Your task to perform on an android device: check the backup settings in the google photos Image 0: 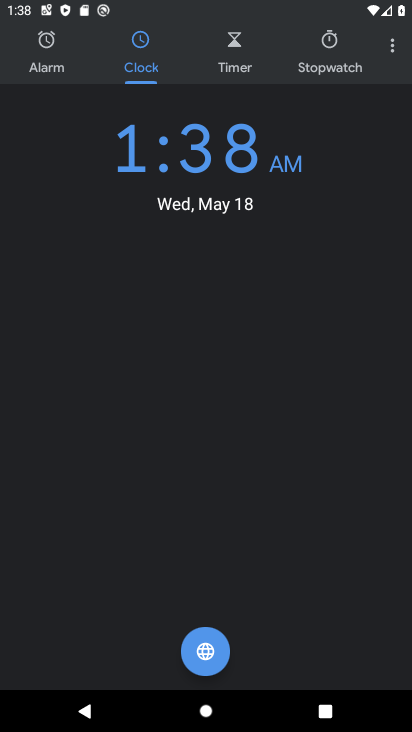
Step 0: press home button
Your task to perform on an android device: check the backup settings in the google photos Image 1: 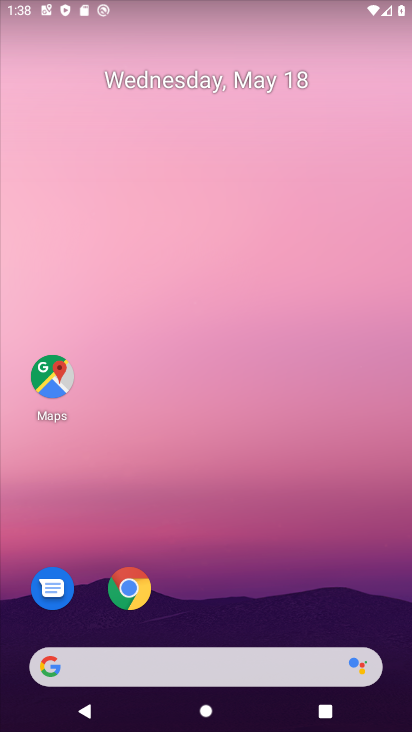
Step 1: drag from (284, 586) to (288, 208)
Your task to perform on an android device: check the backup settings in the google photos Image 2: 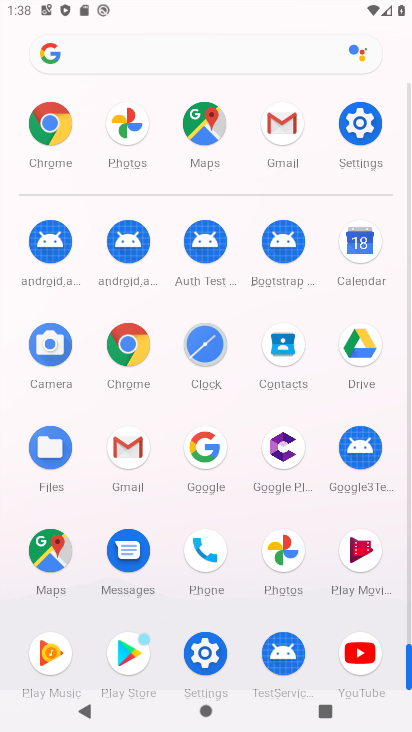
Step 2: click (288, 559)
Your task to perform on an android device: check the backup settings in the google photos Image 3: 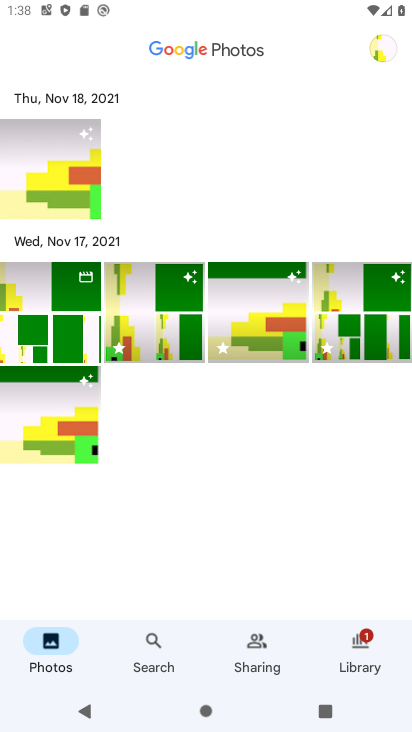
Step 3: click (378, 56)
Your task to perform on an android device: check the backup settings in the google photos Image 4: 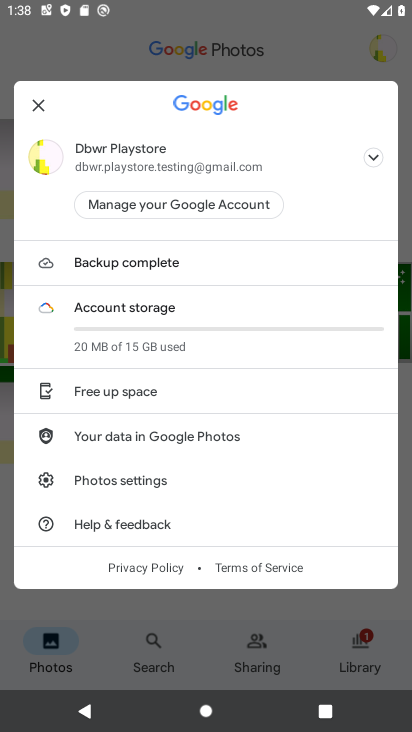
Step 4: click (170, 482)
Your task to perform on an android device: check the backup settings in the google photos Image 5: 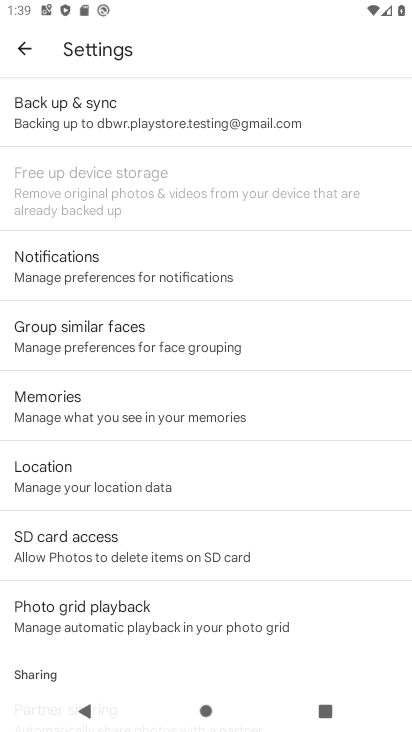
Step 5: drag from (342, 569) to (319, 396)
Your task to perform on an android device: check the backup settings in the google photos Image 6: 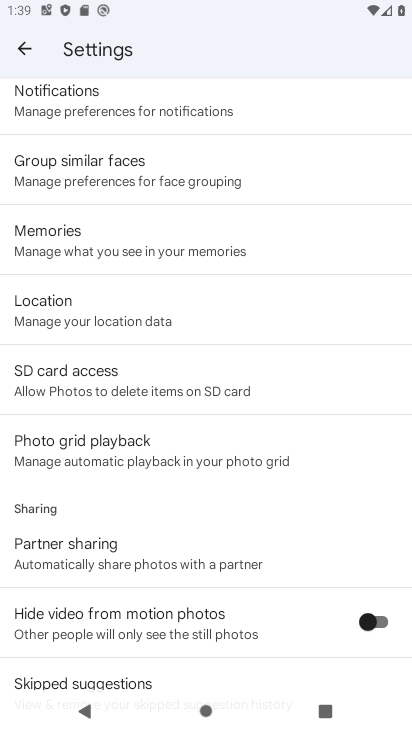
Step 6: drag from (278, 608) to (296, 403)
Your task to perform on an android device: check the backup settings in the google photos Image 7: 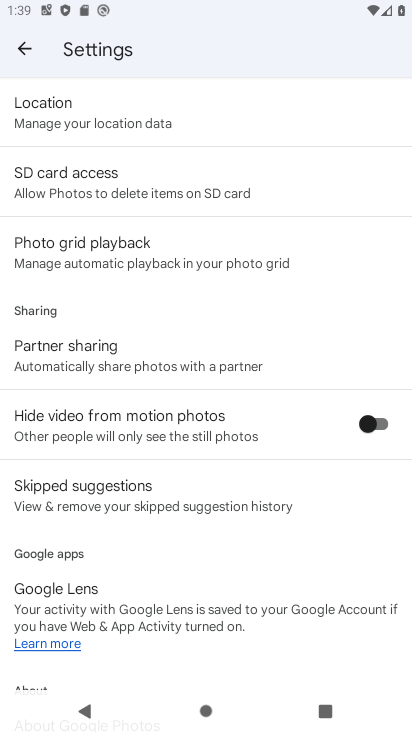
Step 7: drag from (291, 587) to (315, 323)
Your task to perform on an android device: check the backup settings in the google photos Image 8: 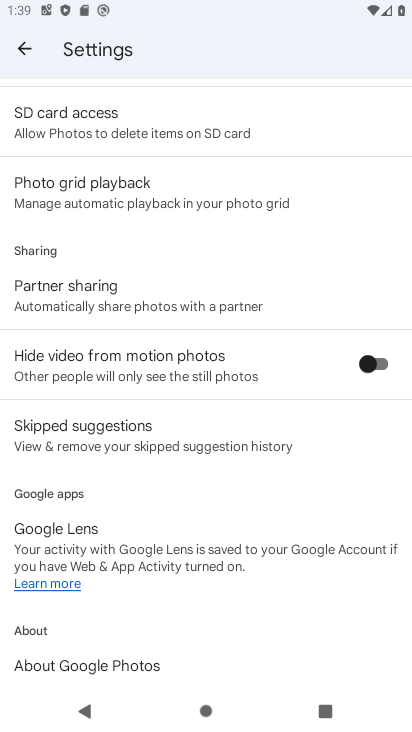
Step 8: drag from (272, 557) to (286, 362)
Your task to perform on an android device: check the backup settings in the google photos Image 9: 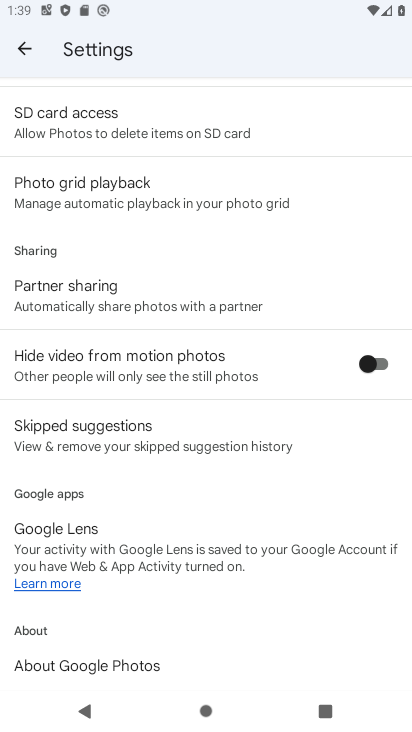
Step 9: drag from (295, 229) to (296, 359)
Your task to perform on an android device: check the backup settings in the google photos Image 10: 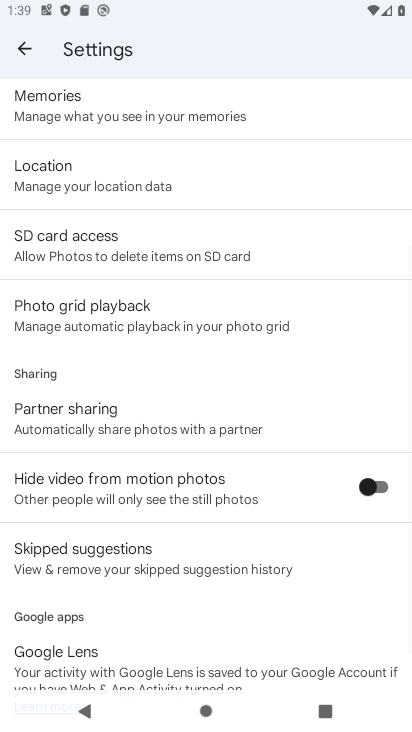
Step 10: drag from (289, 187) to (287, 309)
Your task to perform on an android device: check the backup settings in the google photos Image 11: 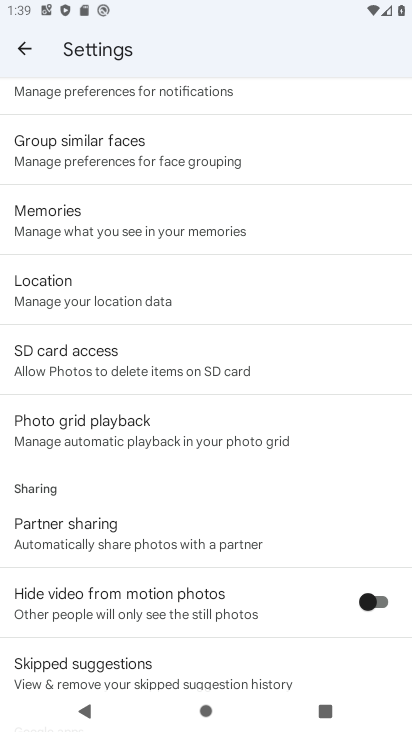
Step 11: drag from (303, 178) to (301, 330)
Your task to perform on an android device: check the backup settings in the google photos Image 12: 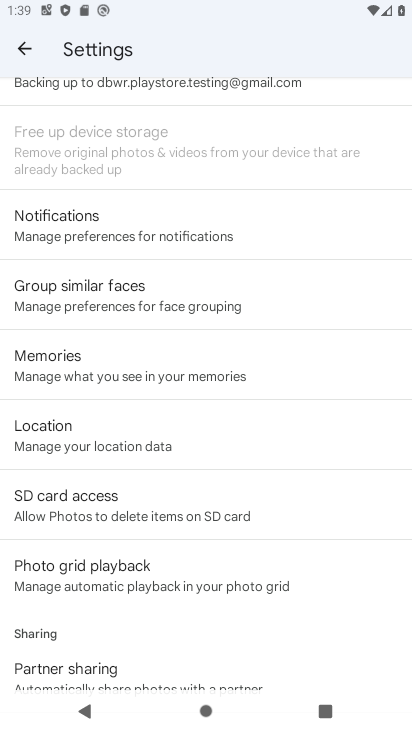
Step 12: drag from (314, 203) to (310, 335)
Your task to perform on an android device: check the backup settings in the google photos Image 13: 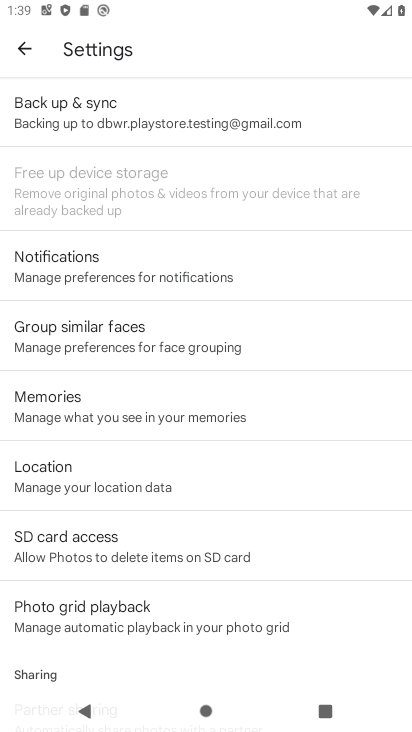
Step 13: drag from (314, 279) to (301, 387)
Your task to perform on an android device: check the backup settings in the google photos Image 14: 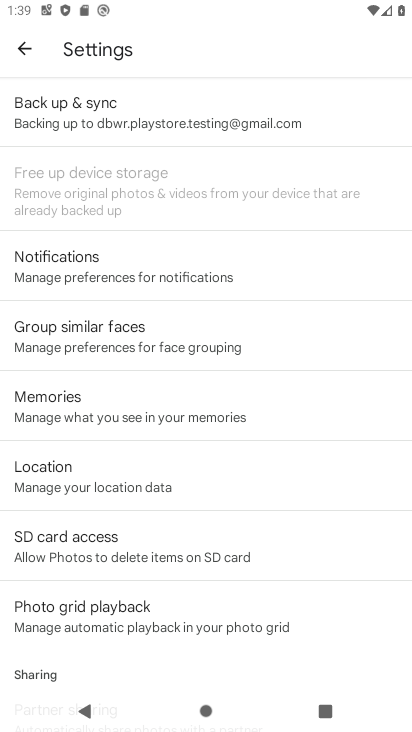
Step 14: click (231, 119)
Your task to perform on an android device: check the backup settings in the google photos Image 15: 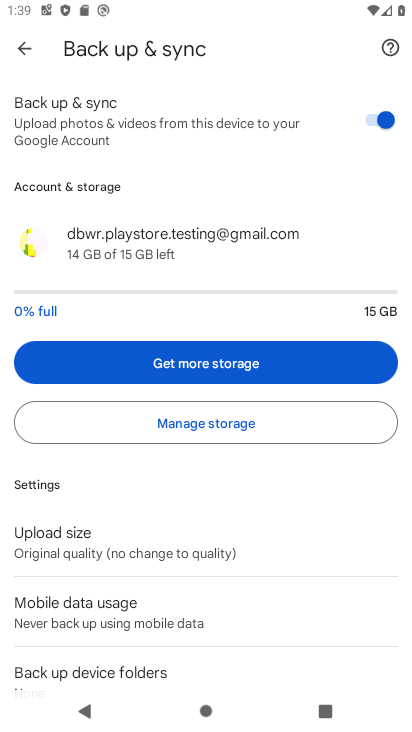
Step 15: task complete